Your task to perform on an android device: Search for sushi restaurants on Maps Image 0: 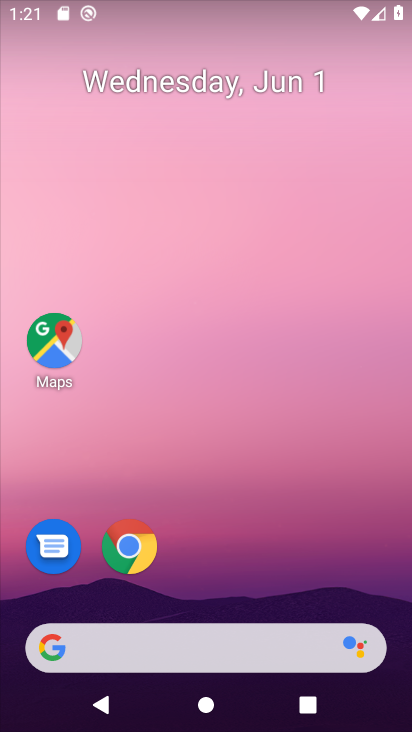
Step 0: click (52, 358)
Your task to perform on an android device: Search for sushi restaurants on Maps Image 1: 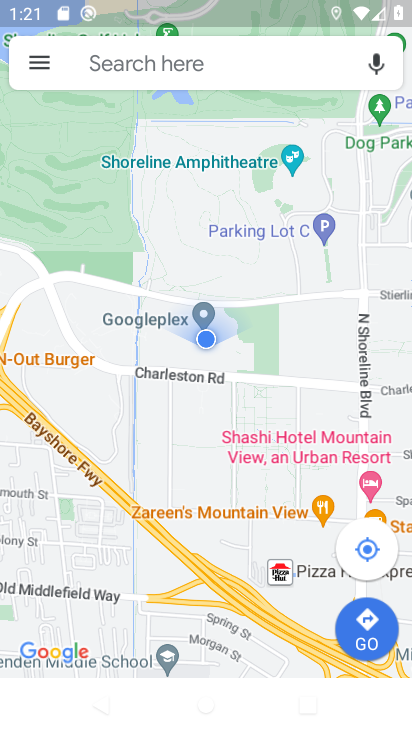
Step 1: click (95, 59)
Your task to perform on an android device: Search for sushi restaurants on Maps Image 2: 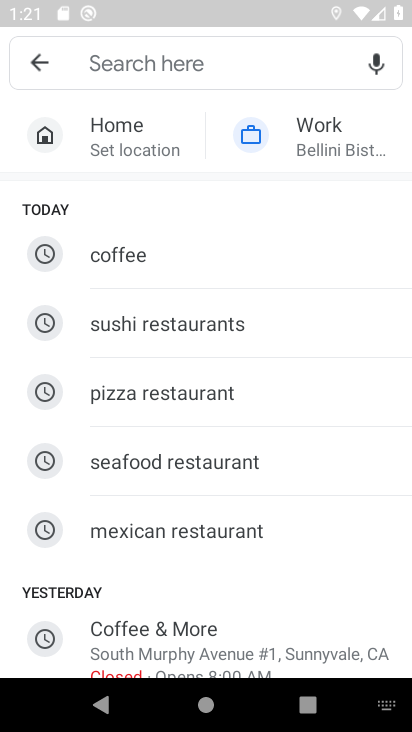
Step 2: click (193, 333)
Your task to perform on an android device: Search for sushi restaurants on Maps Image 3: 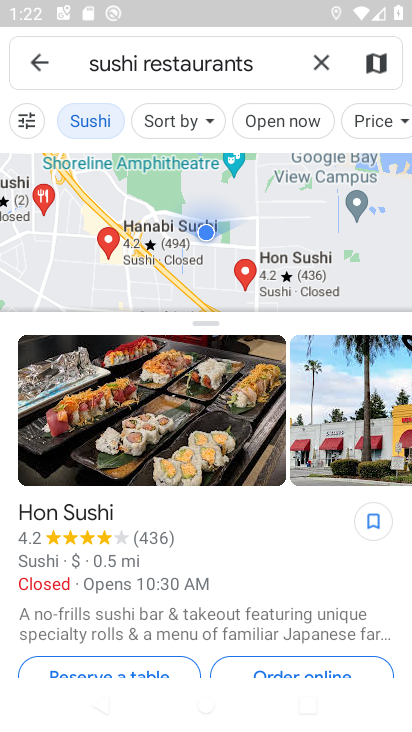
Step 3: task complete